Your task to perform on an android device: read, delete, or share a saved page in the chrome app Image 0: 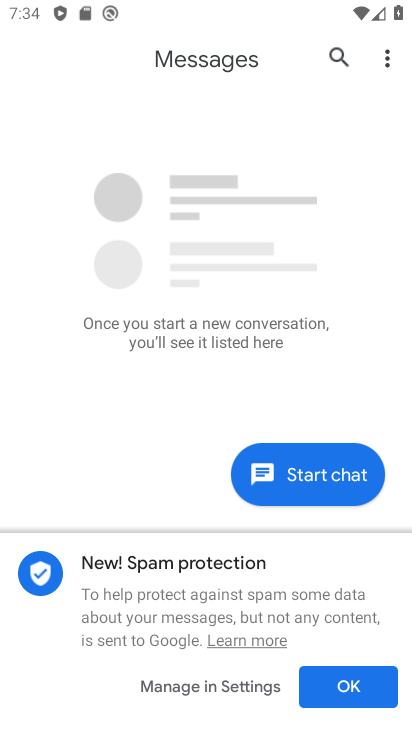
Step 0: press home button
Your task to perform on an android device: read, delete, or share a saved page in the chrome app Image 1: 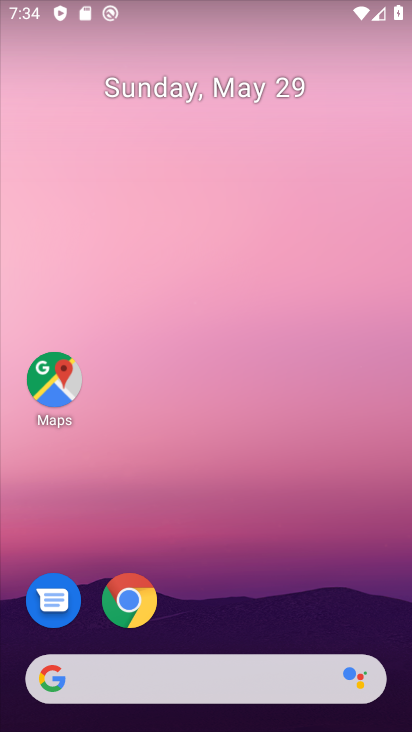
Step 1: click (131, 584)
Your task to perform on an android device: read, delete, or share a saved page in the chrome app Image 2: 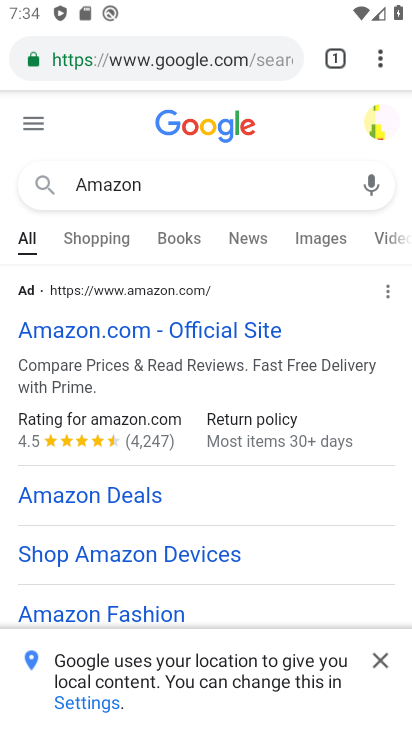
Step 2: click (379, 66)
Your task to perform on an android device: read, delete, or share a saved page in the chrome app Image 3: 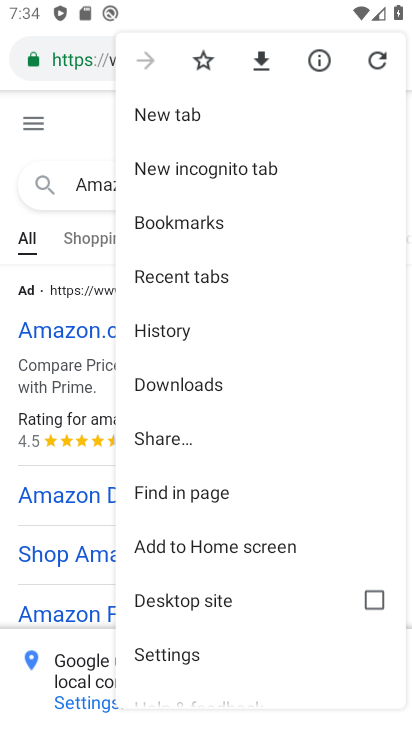
Step 3: drag from (187, 621) to (256, 345)
Your task to perform on an android device: read, delete, or share a saved page in the chrome app Image 4: 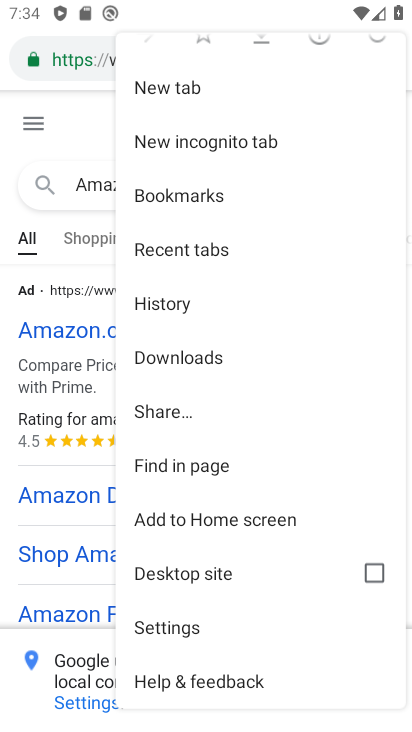
Step 4: click (189, 359)
Your task to perform on an android device: read, delete, or share a saved page in the chrome app Image 5: 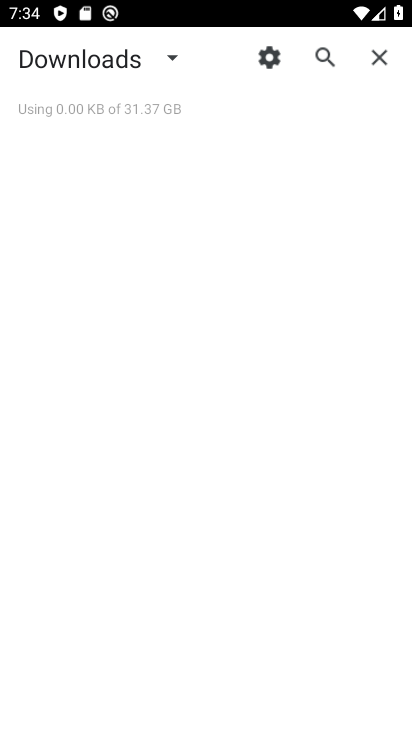
Step 5: task complete